Your task to perform on an android device: add a contact Image 0: 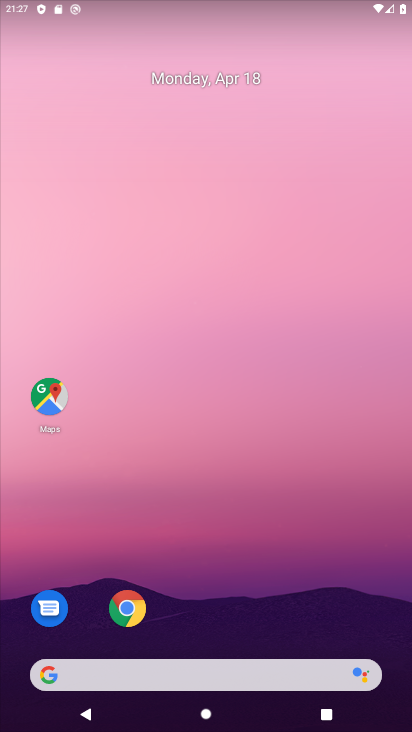
Step 0: drag from (205, 562) to (250, 101)
Your task to perform on an android device: add a contact Image 1: 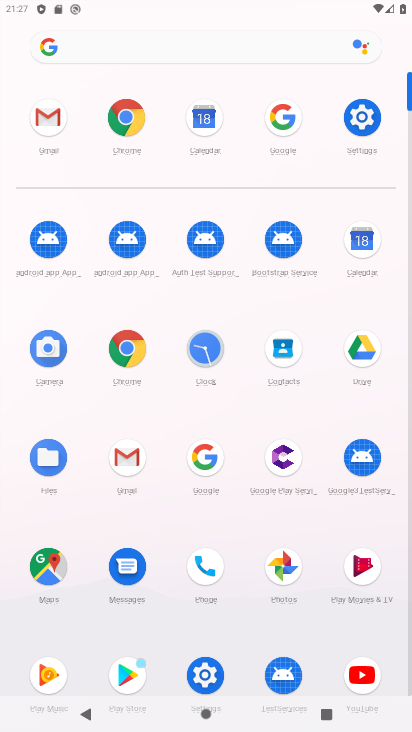
Step 1: click (279, 352)
Your task to perform on an android device: add a contact Image 2: 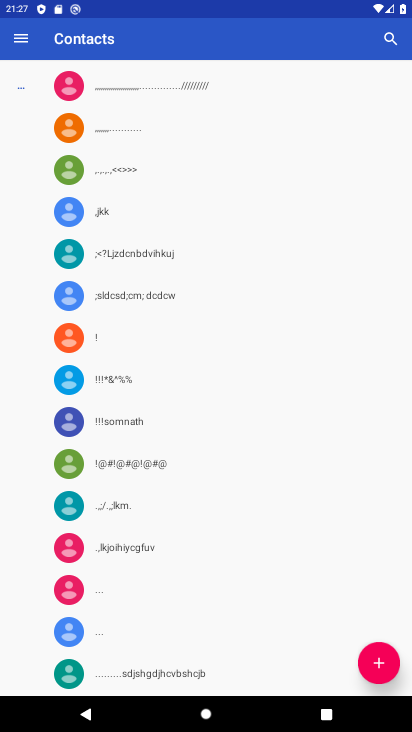
Step 2: click (379, 661)
Your task to perform on an android device: add a contact Image 3: 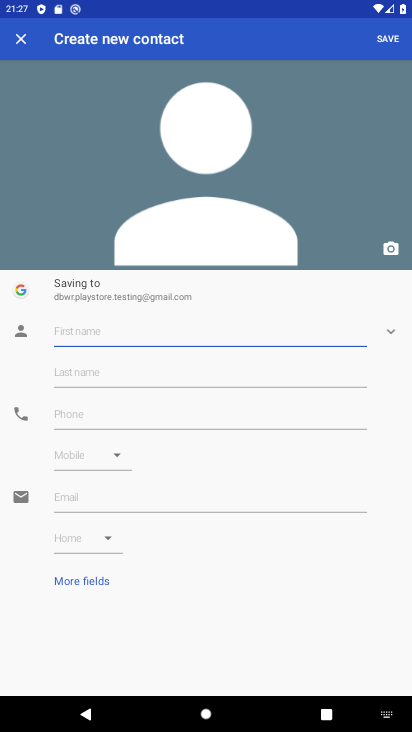
Step 3: click (146, 329)
Your task to perform on an android device: add a contact Image 4: 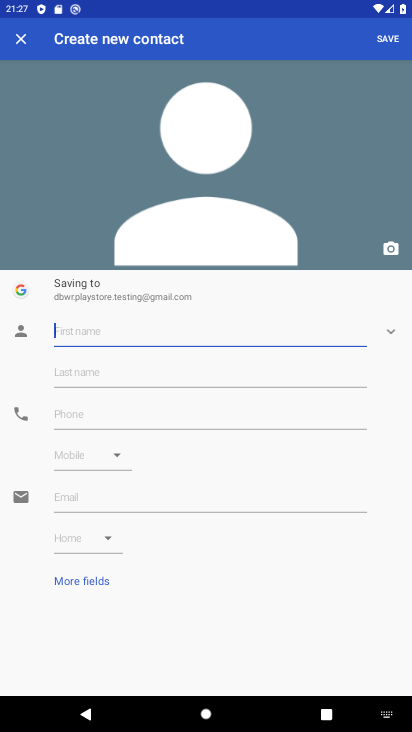
Step 4: type "ghfgg"
Your task to perform on an android device: add a contact Image 5: 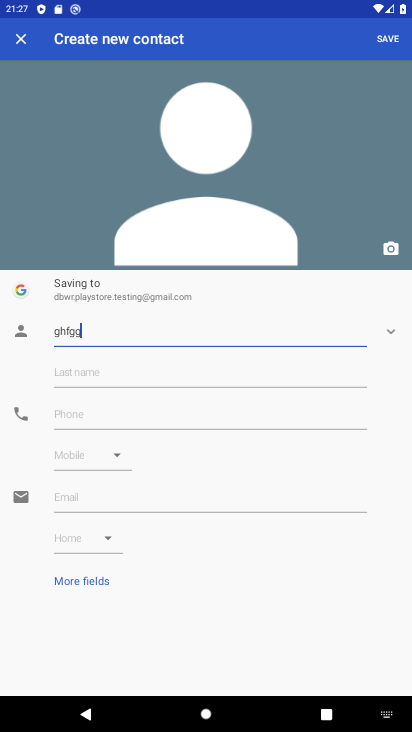
Step 5: click (389, 36)
Your task to perform on an android device: add a contact Image 6: 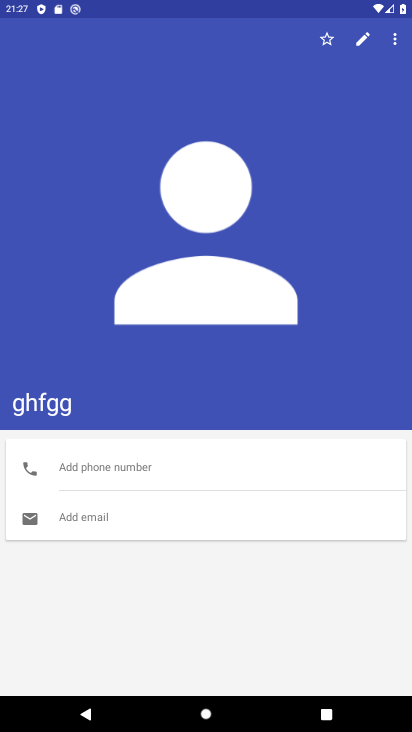
Step 6: task complete